Your task to perform on an android device: Open Google Chrome and open the bookmarks view Image 0: 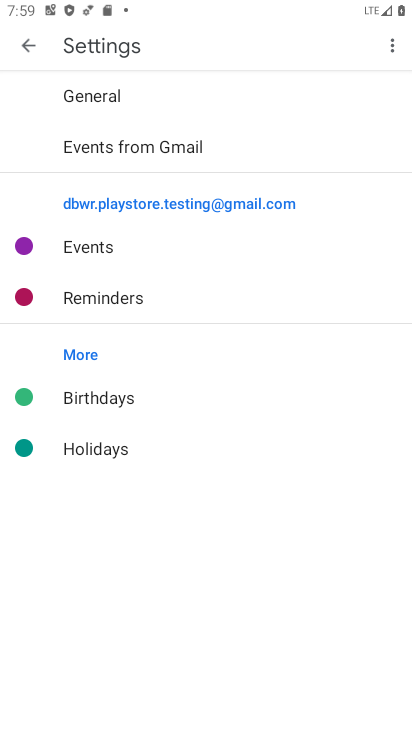
Step 0: click (30, 48)
Your task to perform on an android device: Open Google Chrome and open the bookmarks view Image 1: 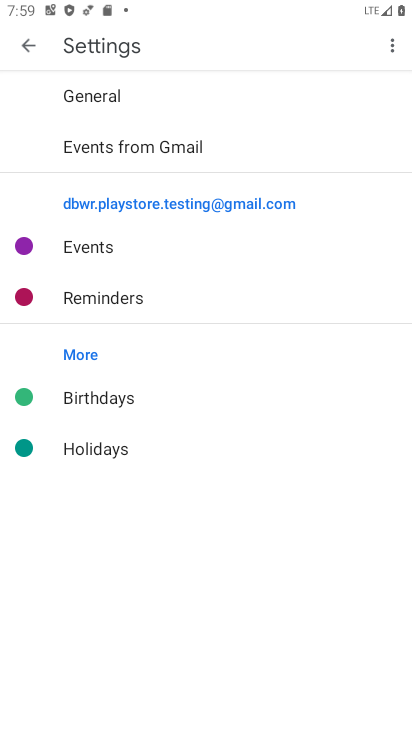
Step 1: click (28, 50)
Your task to perform on an android device: Open Google Chrome and open the bookmarks view Image 2: 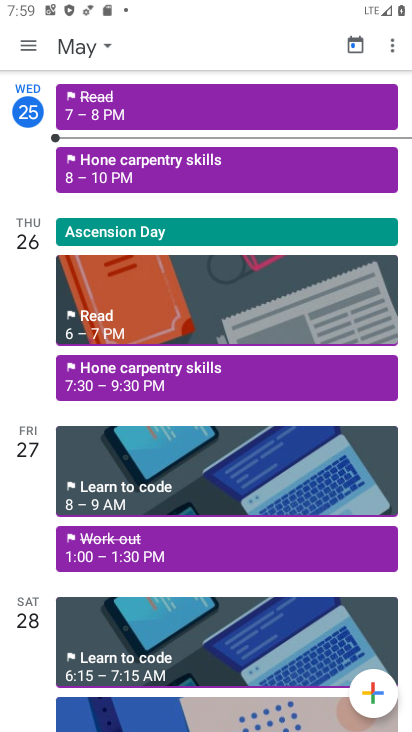
Step 2: press home button
Your task to perform on an android device: Open Google Chrome and open the bookmarks view Image 3: 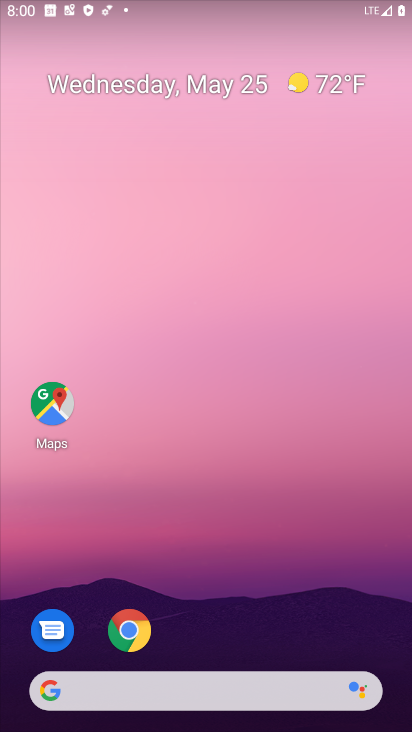
Step 3: click (112, 627)
Your task to perform on an android device: Open Google Chrome and open the bookmarks view Image 4: 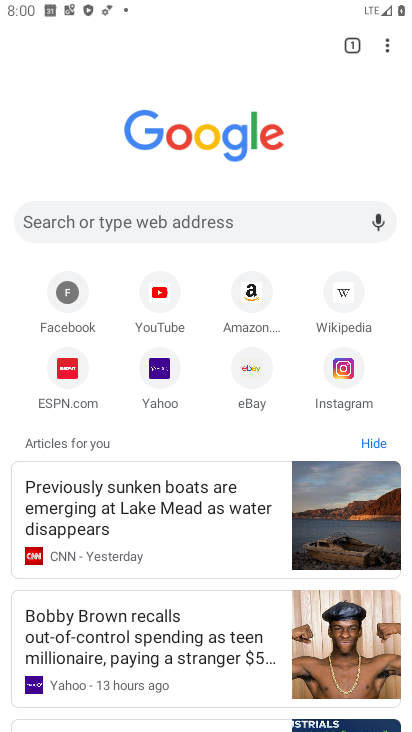
Step 4: task complete